Your task to perform on an android device: clear all cookies in the chrome app Image 0: 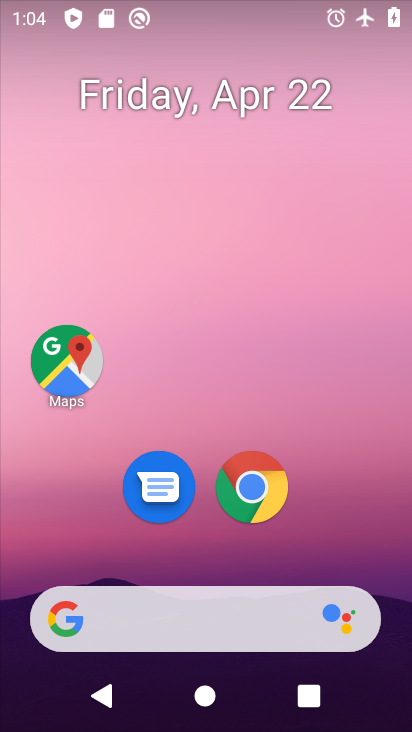
Step 0: click (257, 492)
Your task to perform on an android device: clear all cookies in the chrome app Image 1: 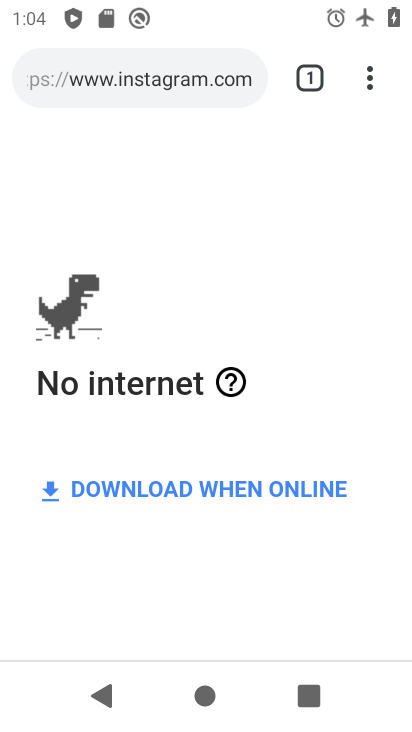
Step 1: task complete